Your task to perform on an android device: Go to display settings Image 0: 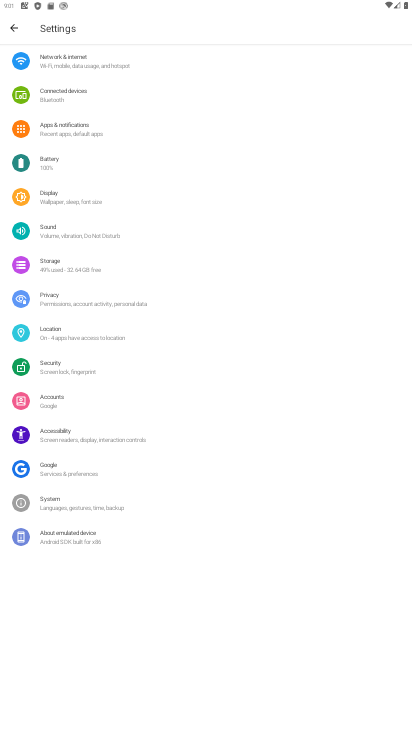
Step 0: click (67, 195)
Your task to perform on an android device: Go to display settings Image 1: 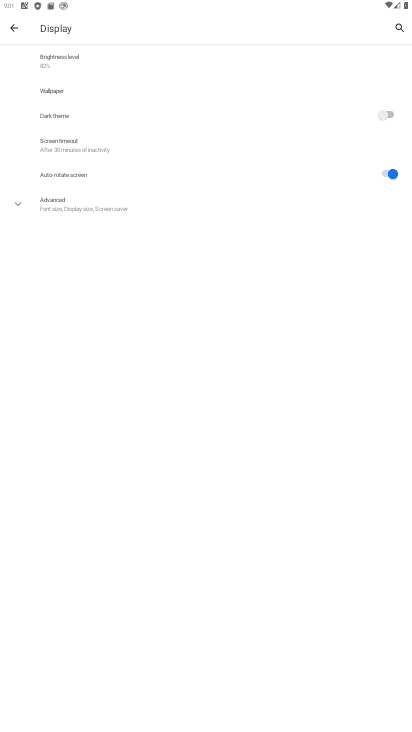
Step 1: task complete